Your task to perform on an android device: find which apps use the phone's location Image 0: 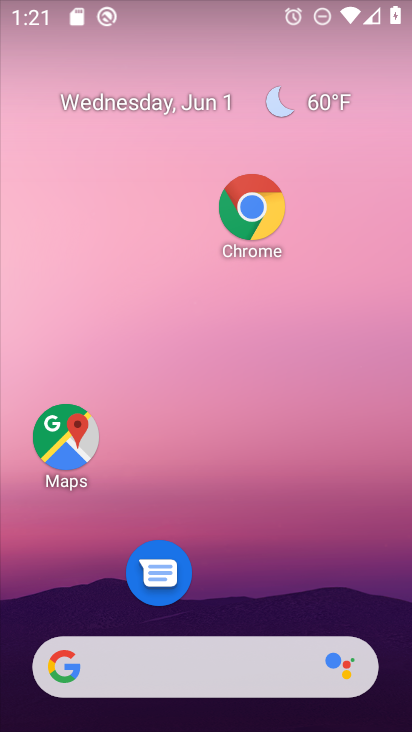
Step 0: drag from (232, 587) to (197, 116)
Your task to perform on an android device: find which apps use the phone's location Image 1: 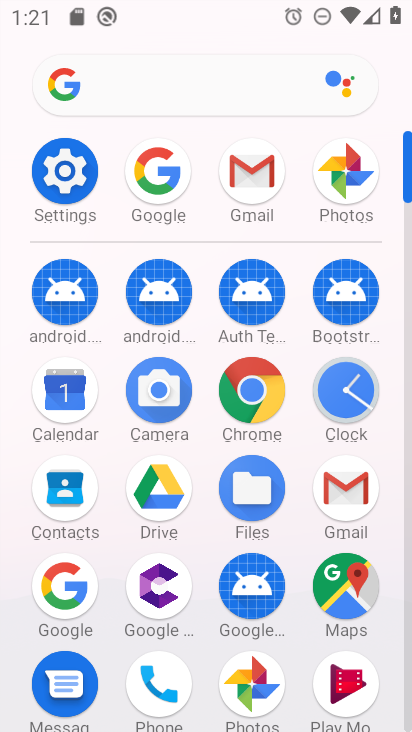
Step 1: click (40, 177)
Your task to perform on an android device: find which apps use the phone's location Image 2: 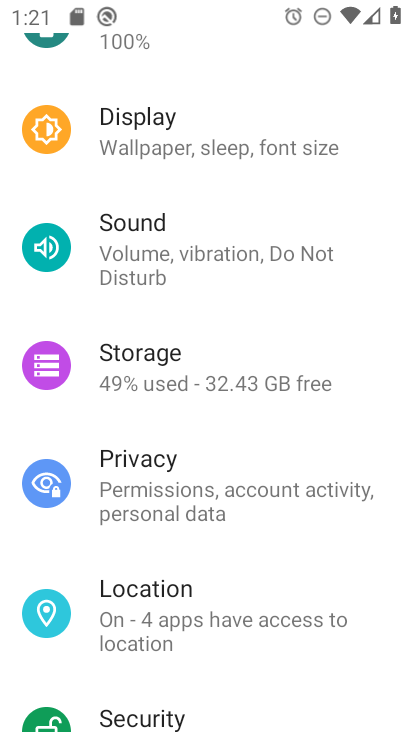
Step 2: click (224, 604)
Your task to perform on an android device: find which apps use the phone's location Image 3: 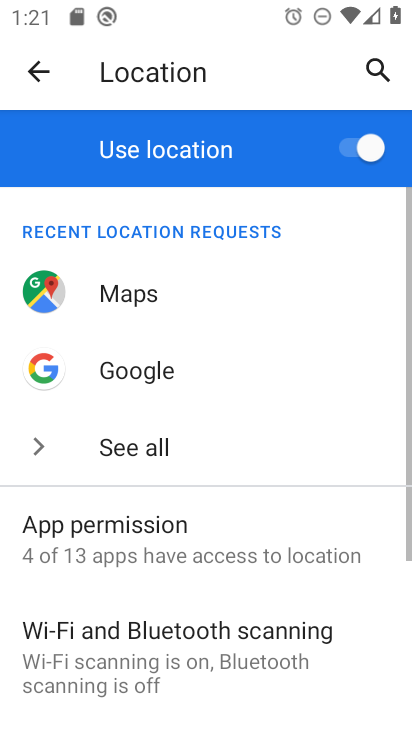
Step 3: drag from (215, 580) to (215, 271)
Your task to perform on an android device: find which apps use the phone's location Image 4: 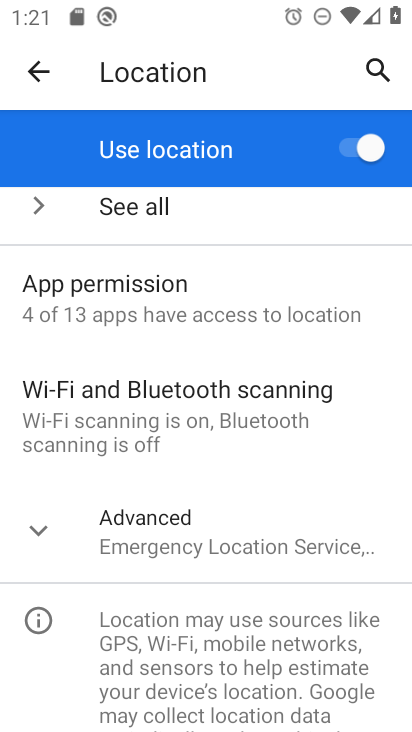
Step 4: click (176, 291)
Your task to perform on an android device: find which apps use the phone's location Image 5: 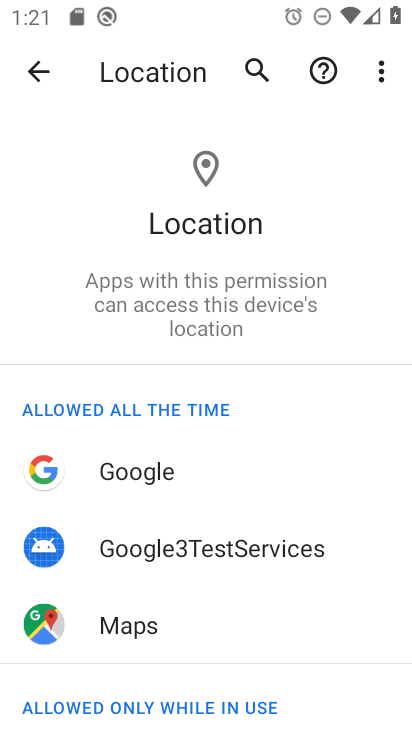
Step 5: task complete